Your task to perform on an android device: What's a good restaurant in Las Vegas? Image 0: 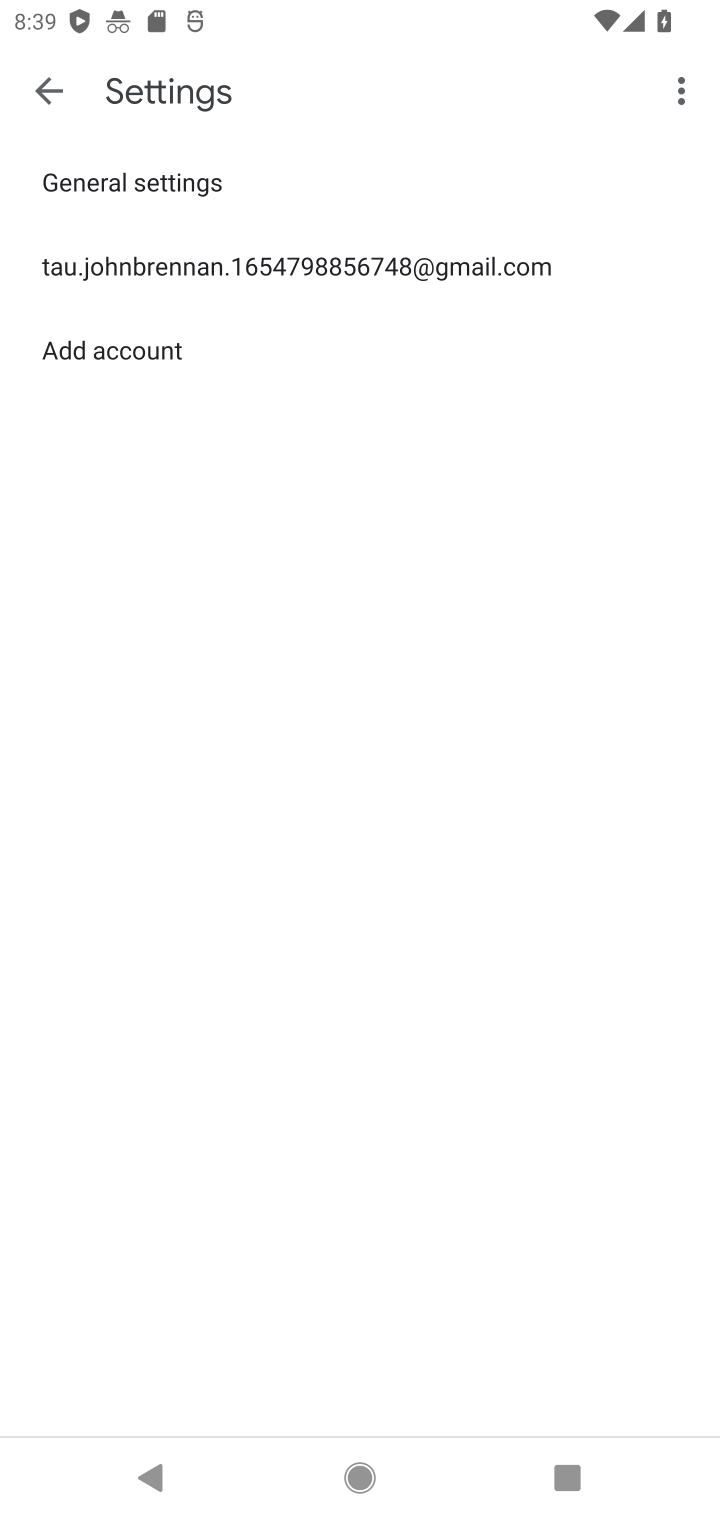
Step 0: press home button
Your task to perform on an android device: What's a good restaurant in Las Vegas? Image 1: 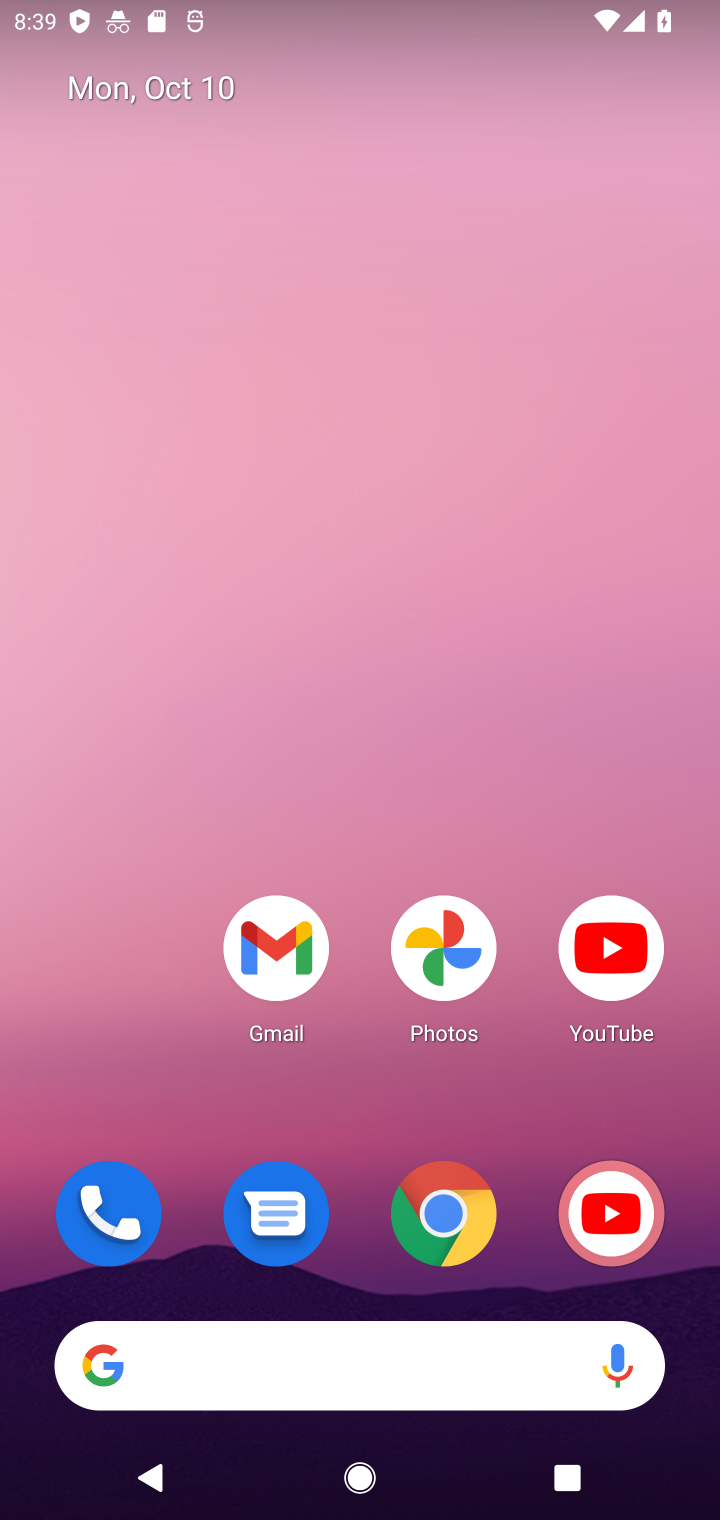
Step 1: click (257, 1358)
Your task to perform on an android device: What's a good restaurant in Las Vegas? Image 2: 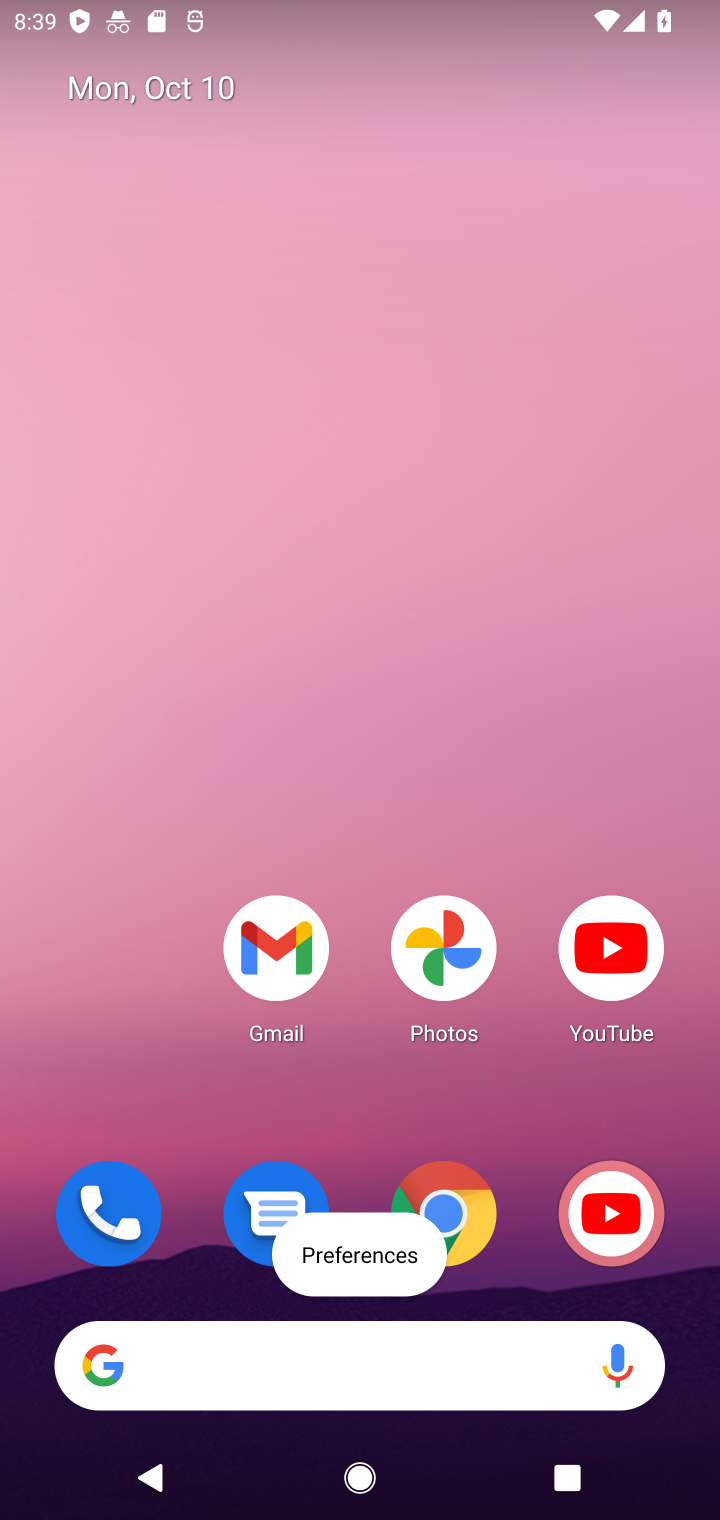
Step 2: click (268, 1358)
Your task to perform on an android device: What's a good restaurant in Las Vegas? Image 3: 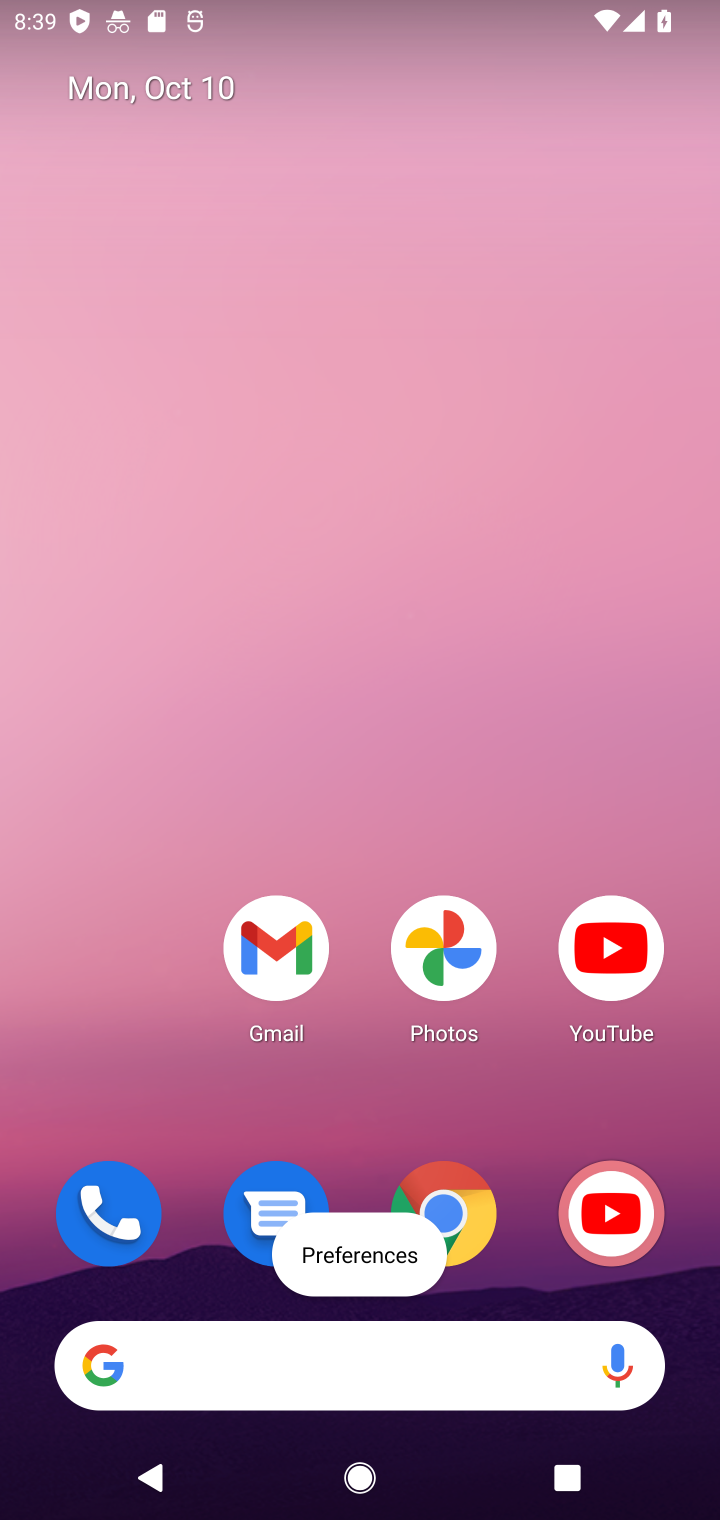
Step 3: click (211, 1383)
Your task to perform on an android device: What's a good restaurant in Las Vegas? Image 4: 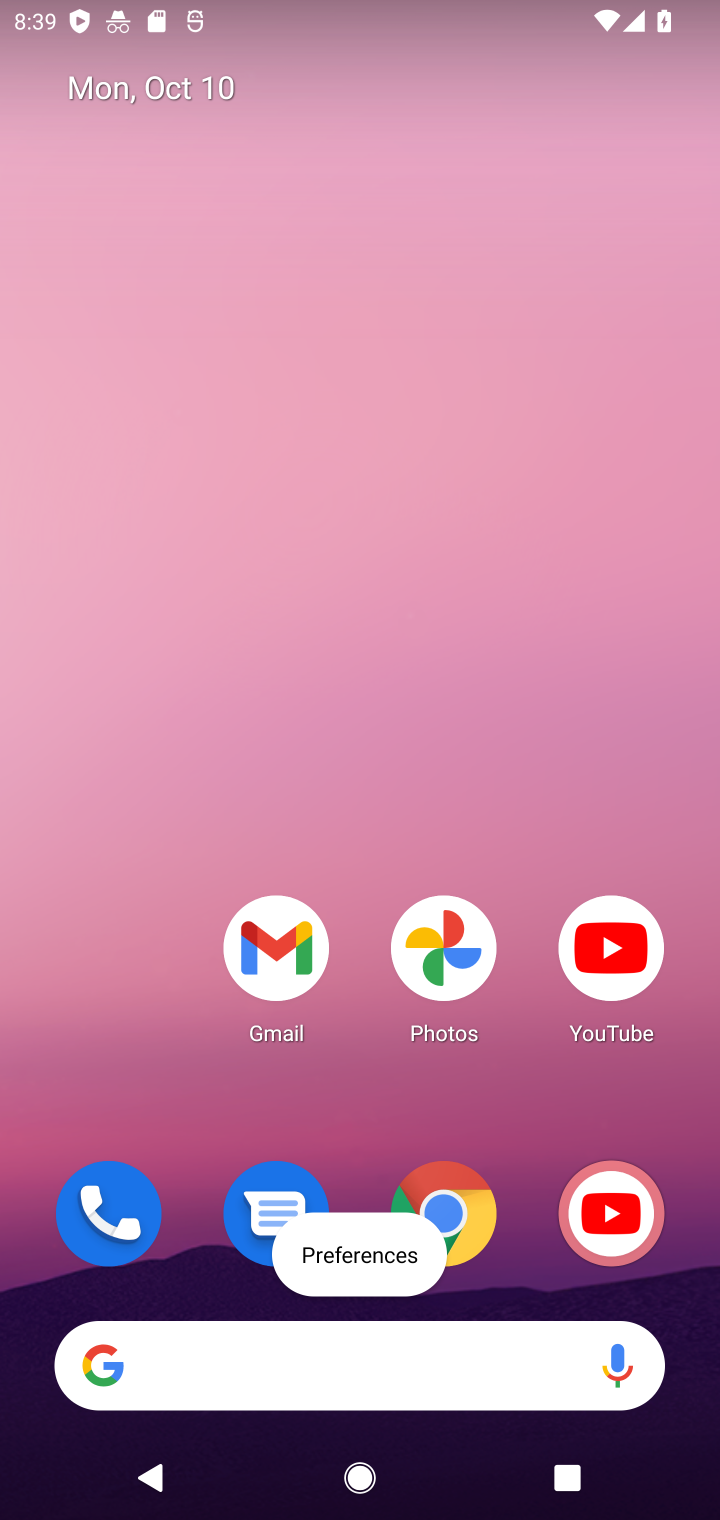
Step 4: click (294, 1376)
Your task to perform on an android device: What's a good restaurant in Las Vegas? Image 5: 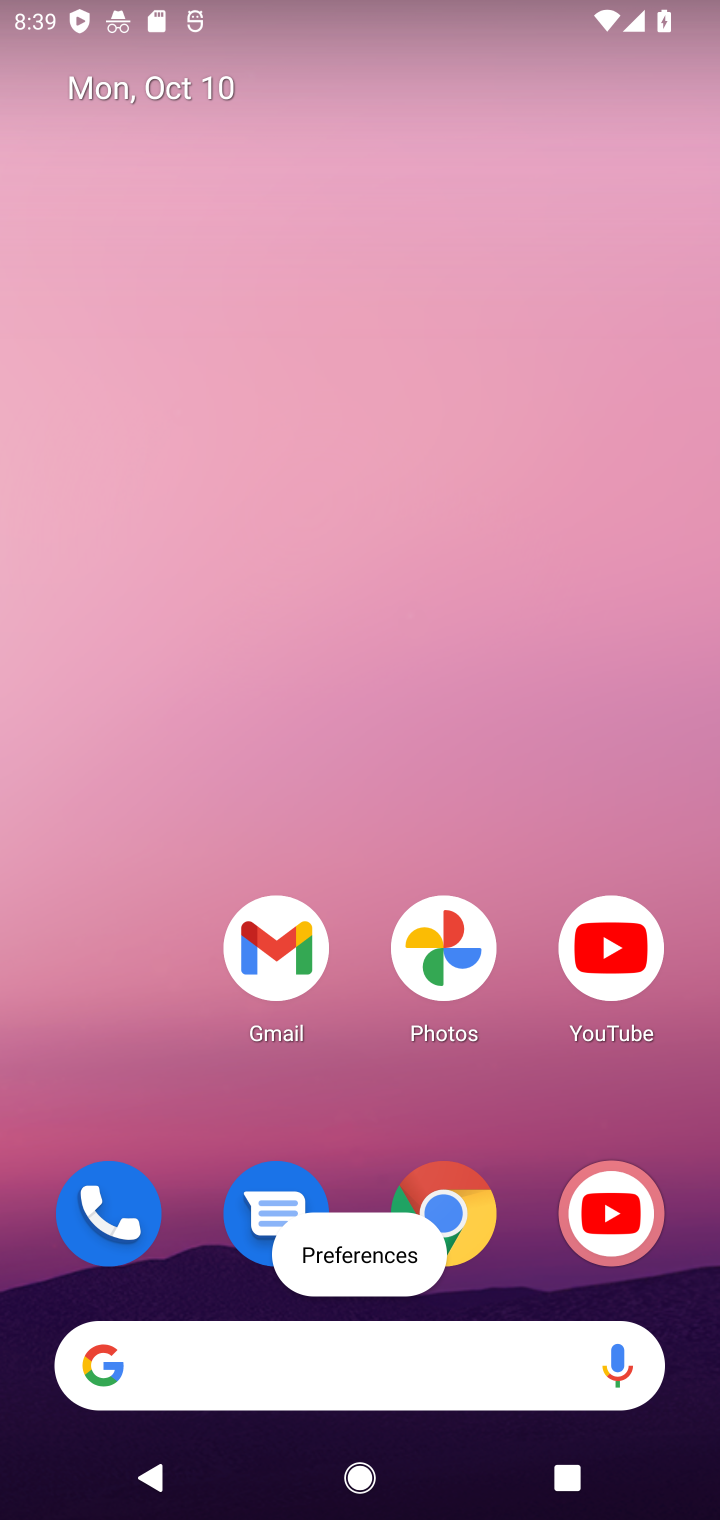
Step 5: click (292, 1335)
Your task to perform on an android device: What's a good restaurant in Las Vegas? Image 6: 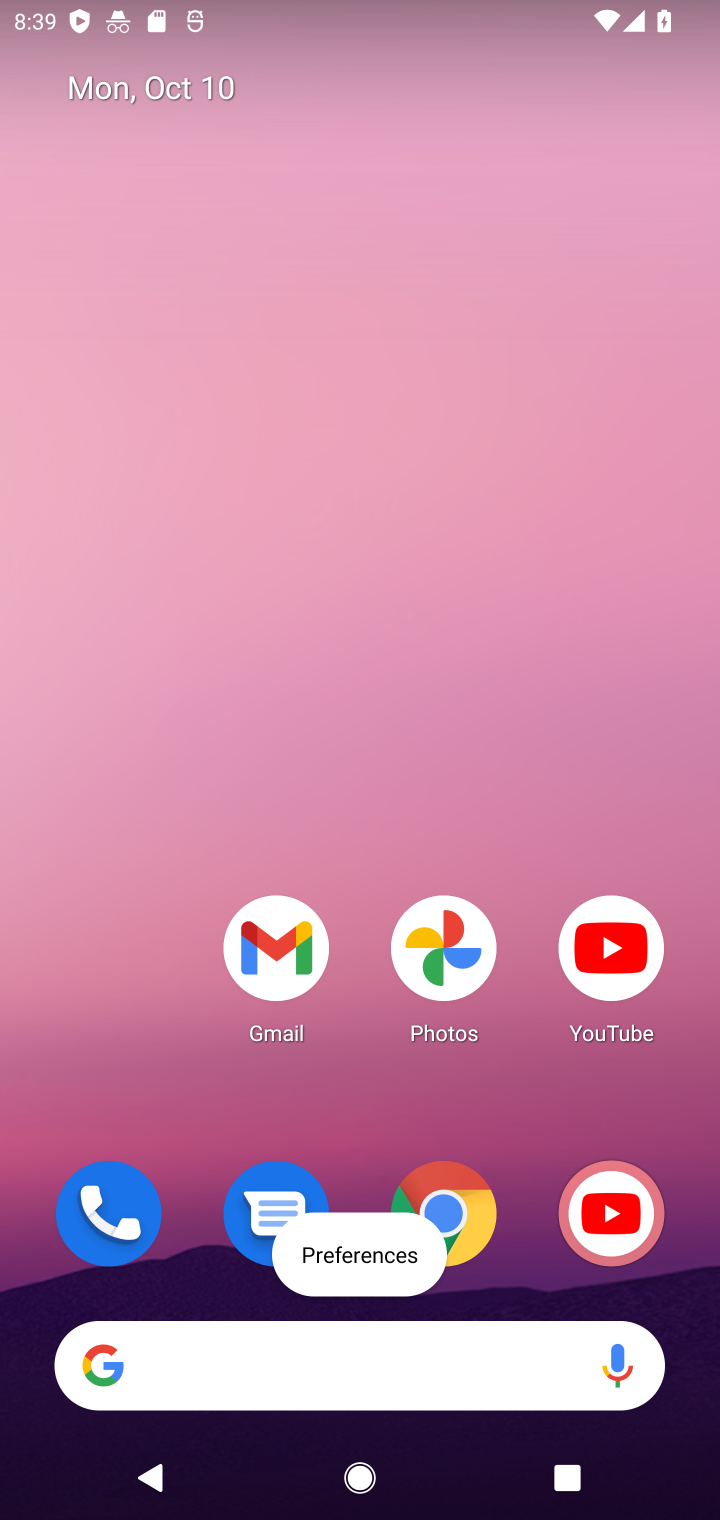
Step 6: click (287, 1384)
Your task to perform on an android device: What's a good restaurant in Las Vegas? Image 7: 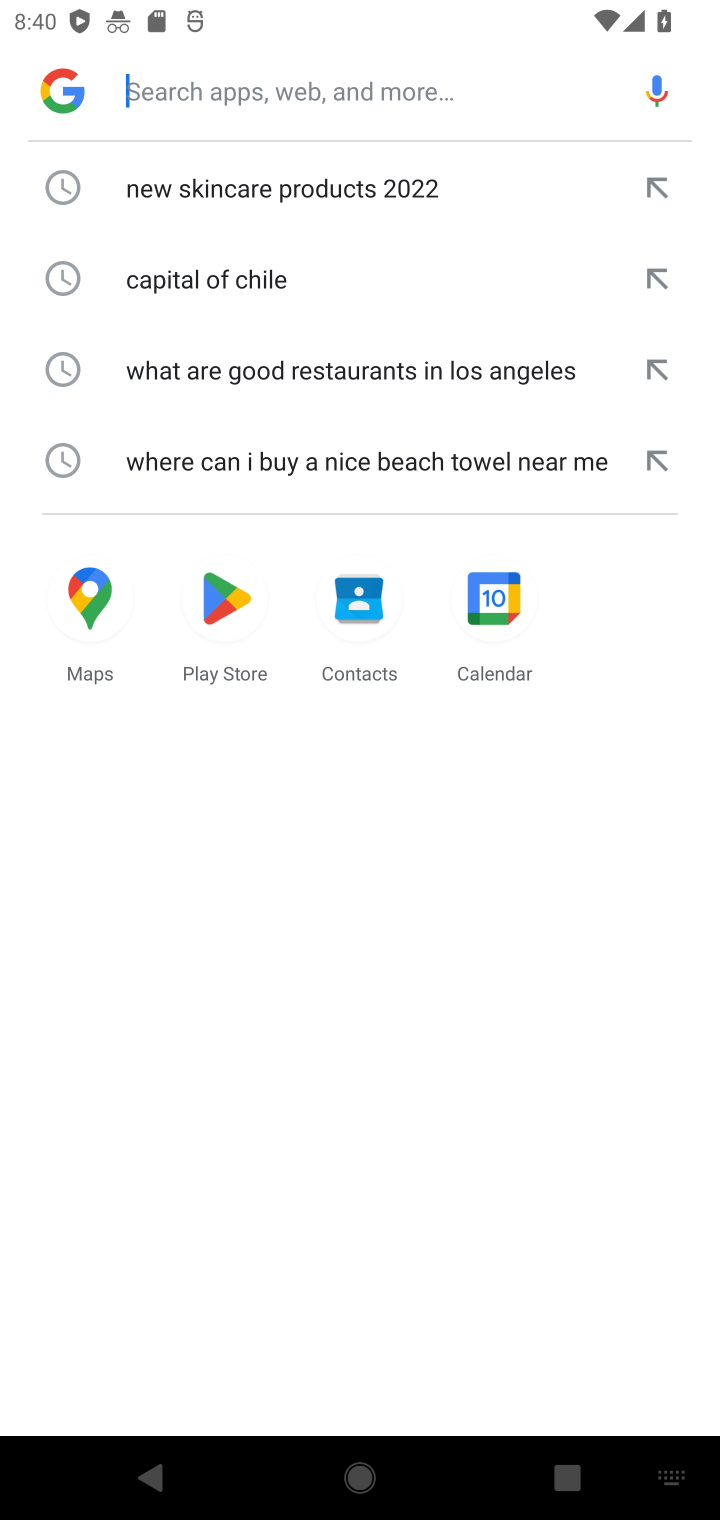
Step 7: click (202, 101)
Your task to perform on an android device: What's a good restaurant in Las Vegas? Image 8: 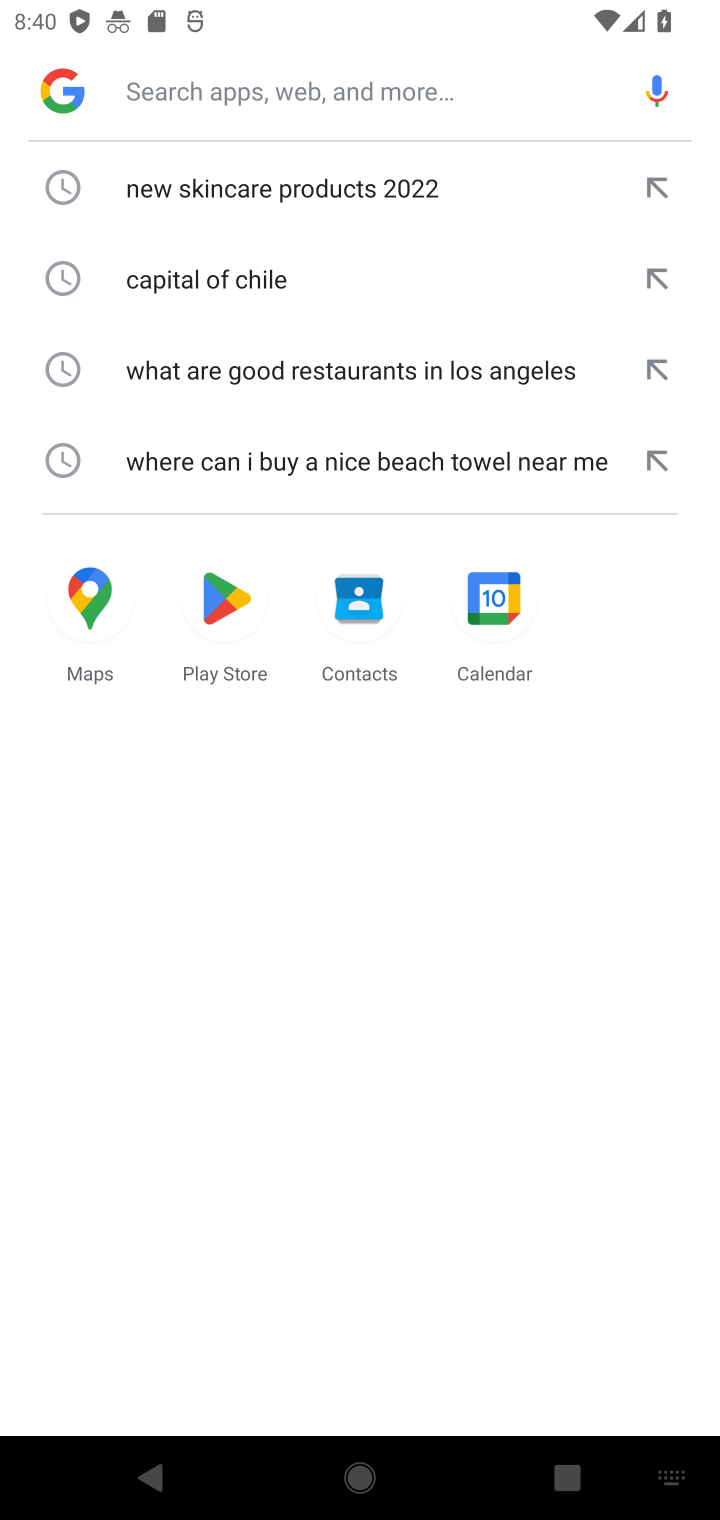
Step 8: type "What's a good restaurant in Las Vegas"
Your task to perform on an android device: What's a good restaurant in Las Vegas? Image 9: 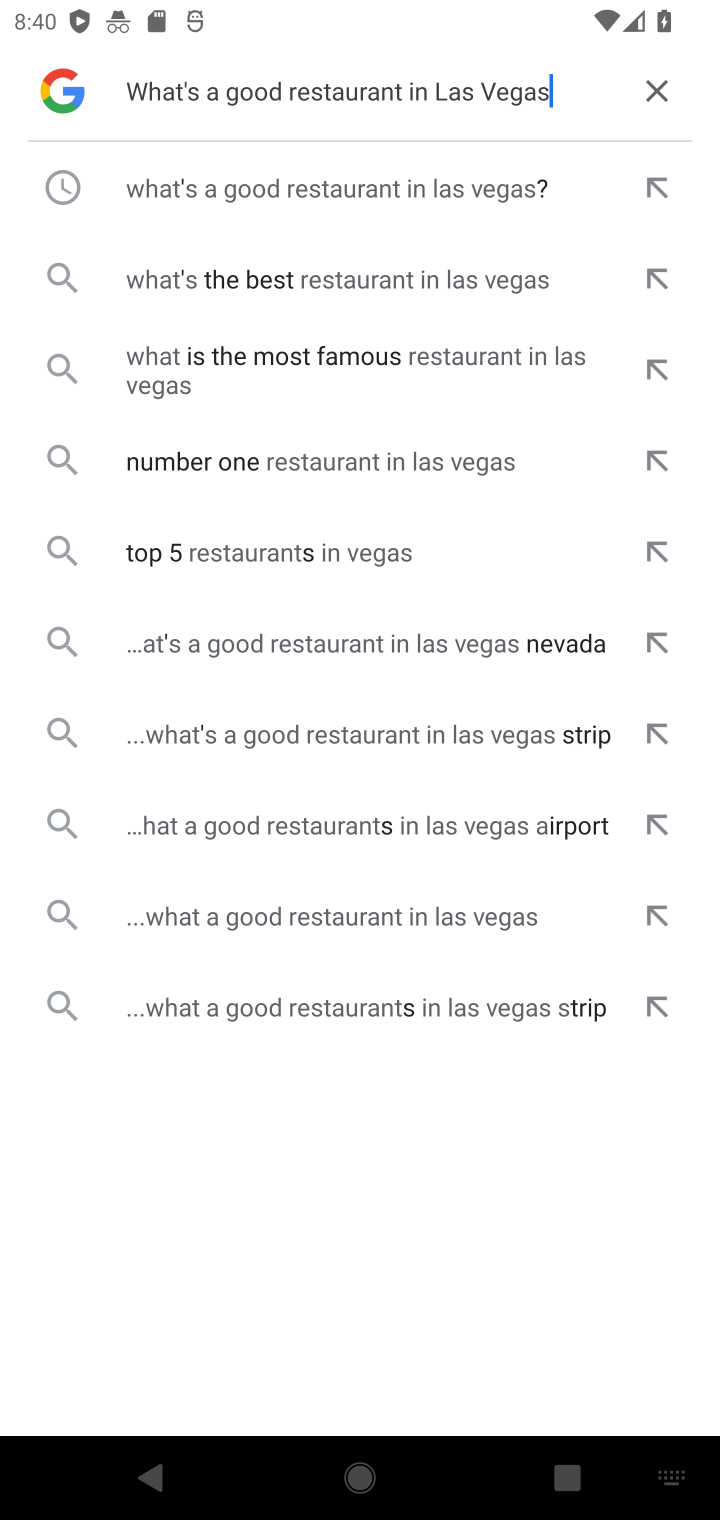
Step 9: click (418, 185)
Your task to perform on an android device: What's a good restaurant in Las Vegas? Image 10: 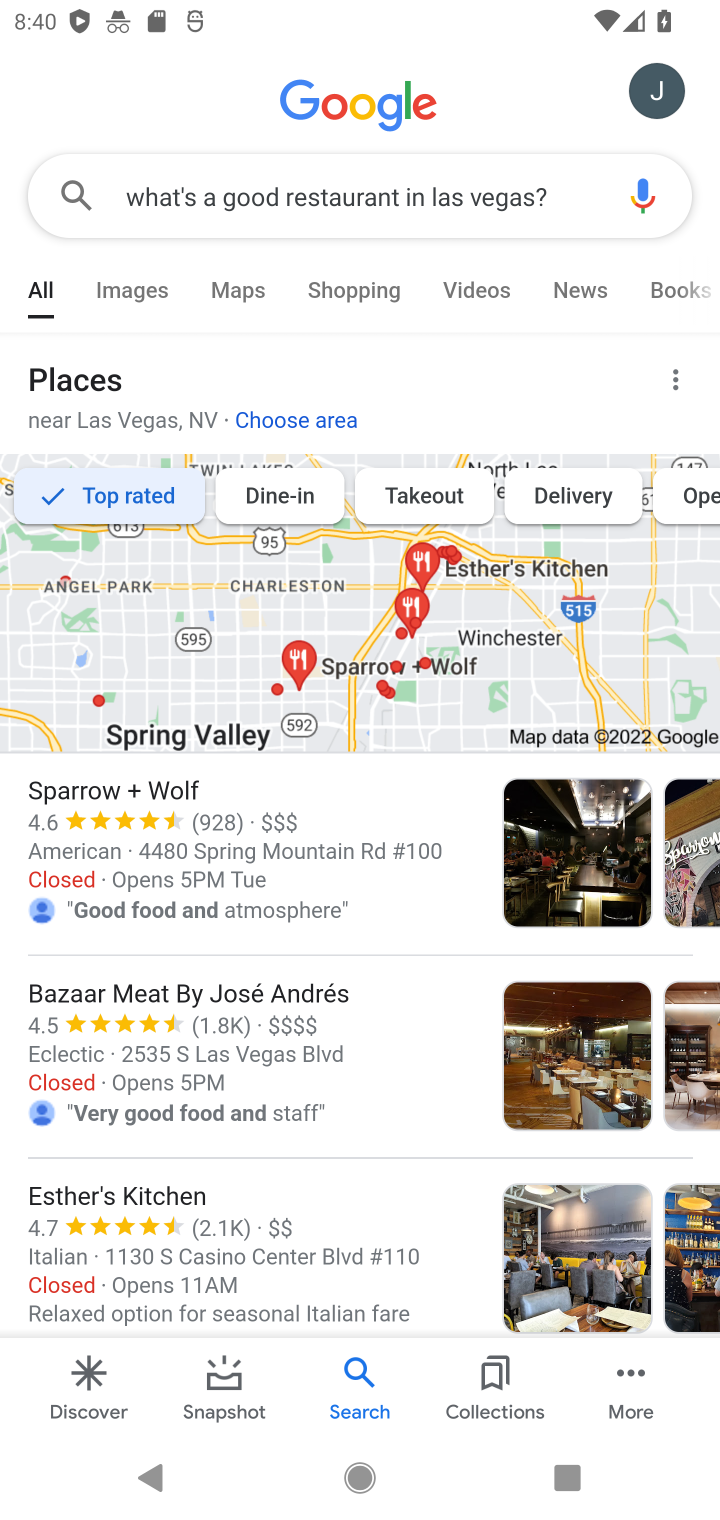
Step 10: task complete